Your task to perform on an android device: Open wifi settings Image 0: 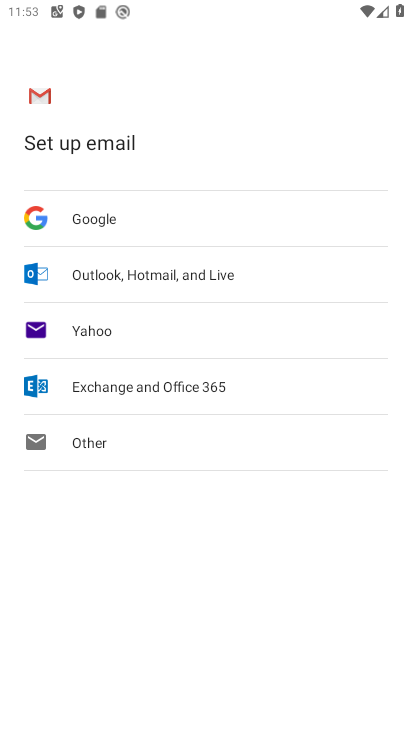
Step 0: press home button
Your task to perform on an android device: Open wifi settings Image 1: 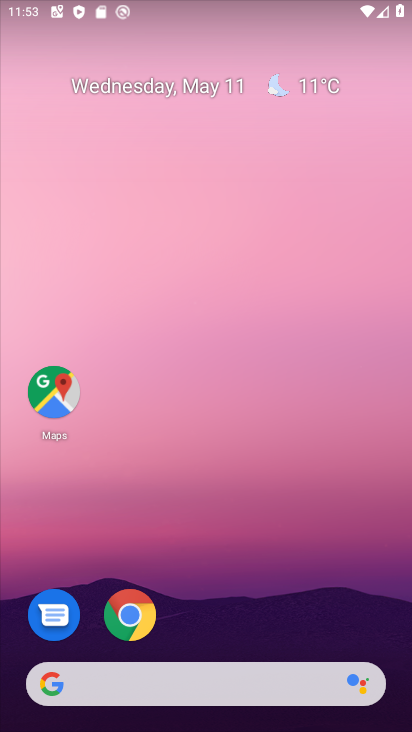
Step 1: drag from (244, 598) to (253, 109)
Your task to perform on an android device: Open wifi settings Image 2: 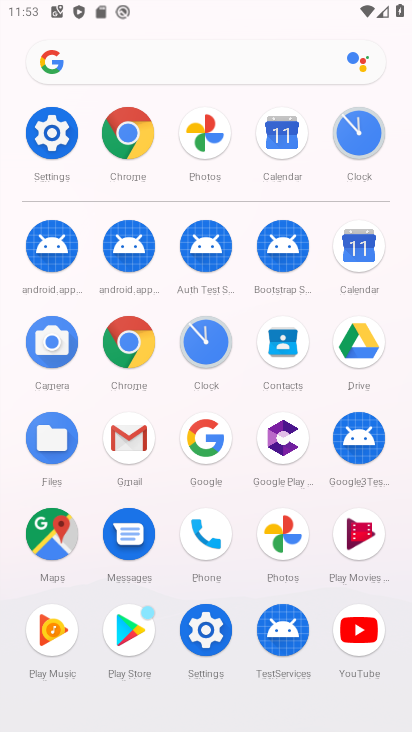
Step 2: click (55, 128)
Your task to perform on an android device: Open wifi settings Image 3: 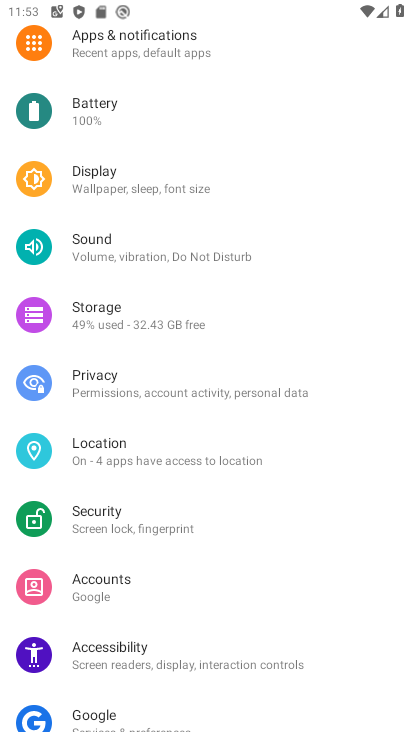
Step 3: drag from (203, 106) to (255, 533)
Your task to perform on an android device: Open wifi settings Image 4: 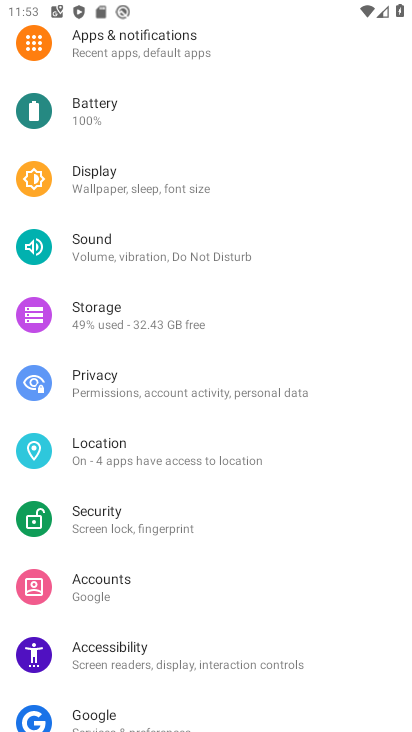
Step 4: drag from (196, 97) to (199, 569)
Your task to perform on an android device: Open wifi settings Image 5: 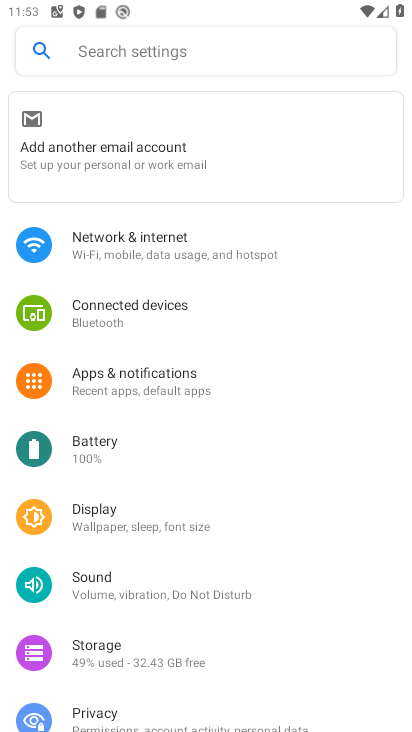
Step 5: click (131, 247)
Your task to perform on an android device: Open wifi settings Image 6: 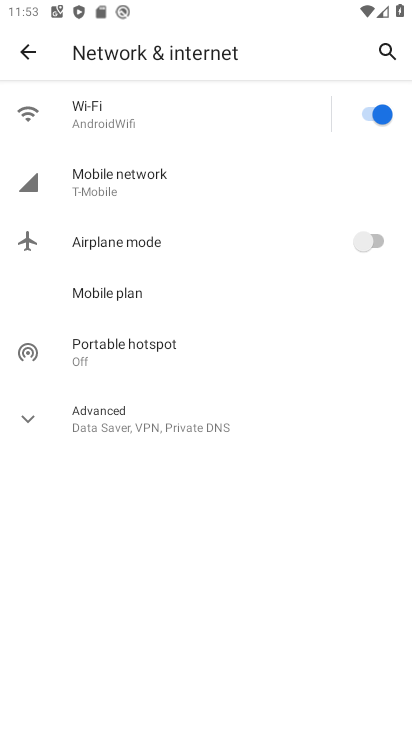
Step 6: click (148, 118)
Your task to perform on an android device: Open wifi settings Image 7: 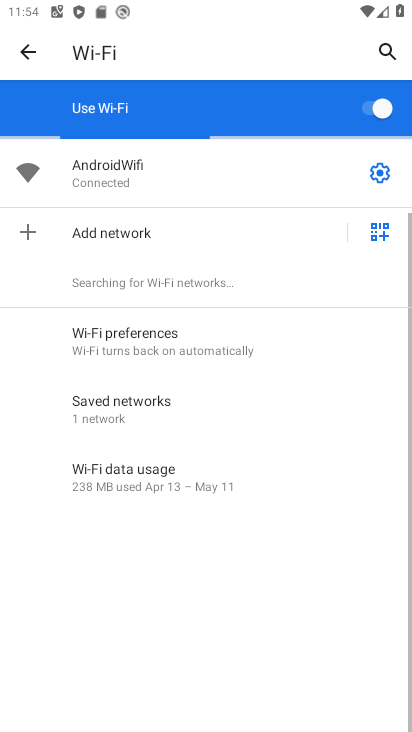
Step 7: click (374, 170)
Your task to perform on an android device: Open wifi settings Image 8: 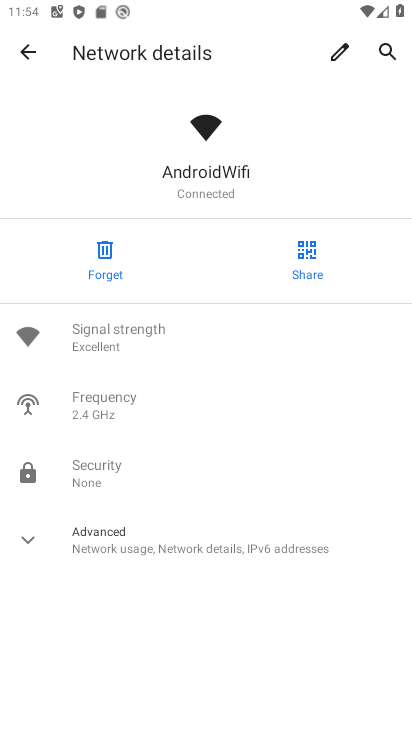
Step 8: task complete